Your task to perform on an android device: Show me popular games on the Play Store Image 0: 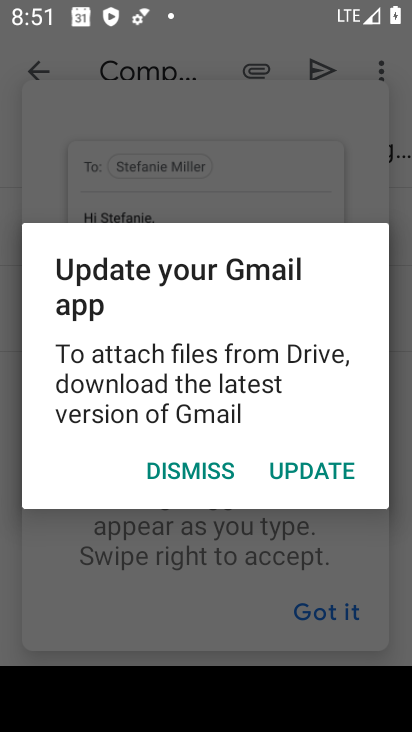
Step 0: press home button
Your task to perform on an android device: Show me popular games on the Play Store Image 1: 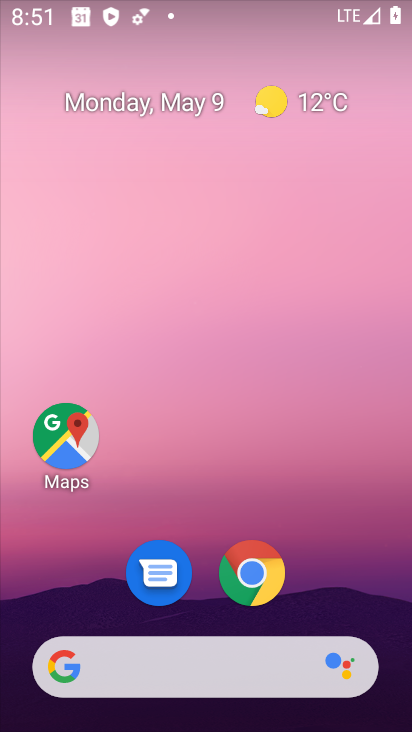
Step 1: drag from (347, 569) to (294, 187)
Your task to perform on an android device: Show me popular games on the Play Store Image 2: 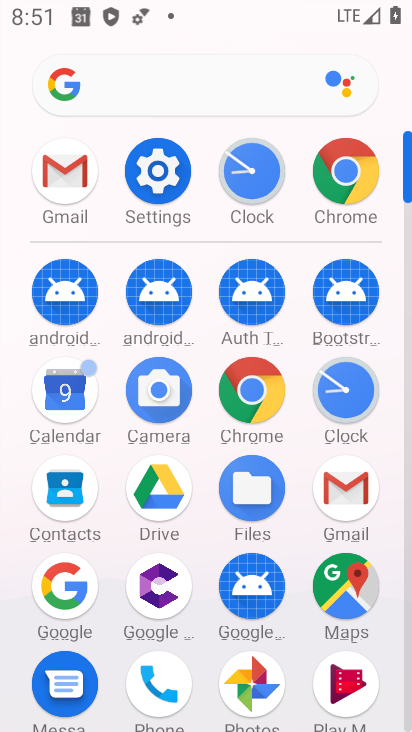
Step 2: click (408, 483)
Your task to perform on an android device: Show me popular games on the Play Store Image 3: 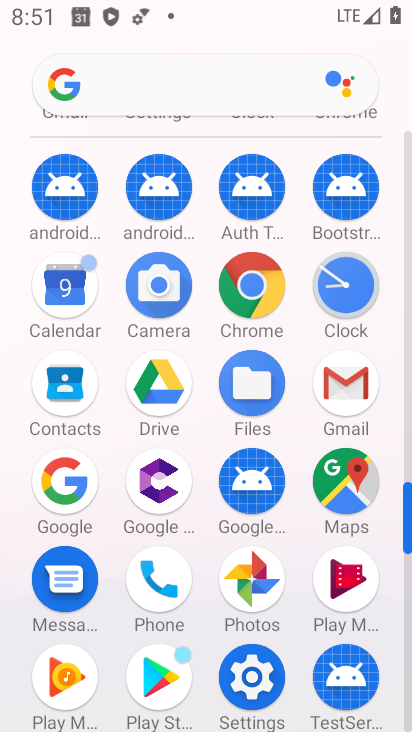
Step 3: click (408, 483)
Your task to perform on an android device: Show me popular games on the Play Store Image 4: 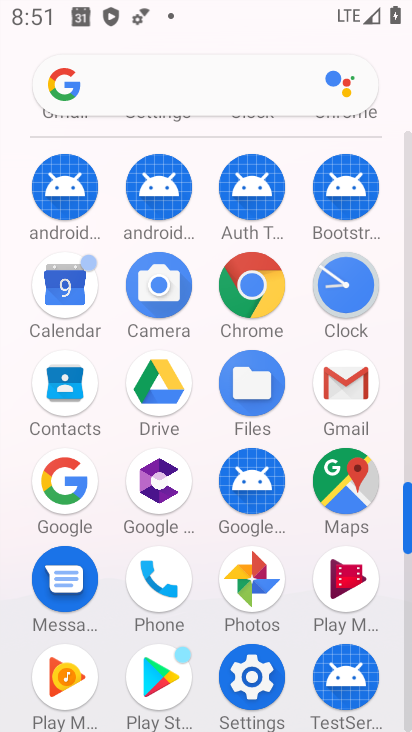
Step 4: click (148, 670)
Your task to perform on an android device: Show me popular games on the Play Store Image 5: 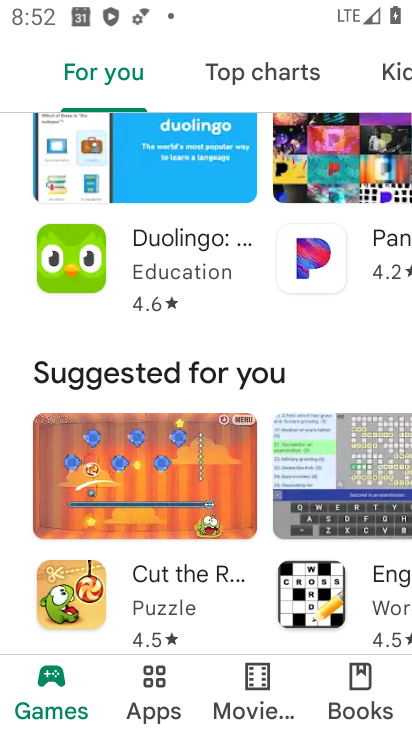
Step 5: task complete